Your task to perform on an android device: toggle sleep mode Image 0: 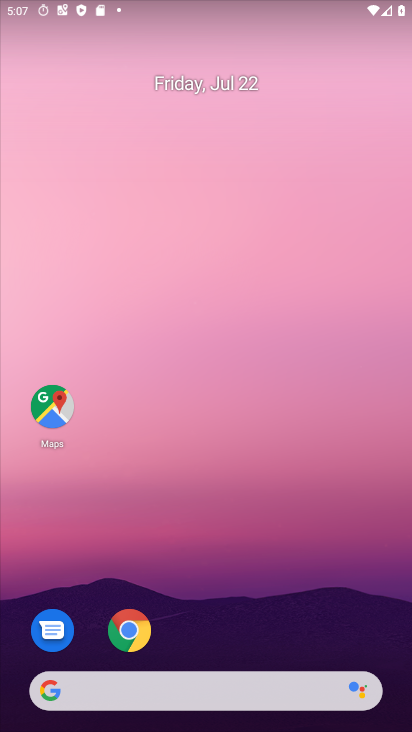
Step 0: drag from (197, 688) to (247, 12)
Your task to perform on an android device: toggle sleep mode Image 1: 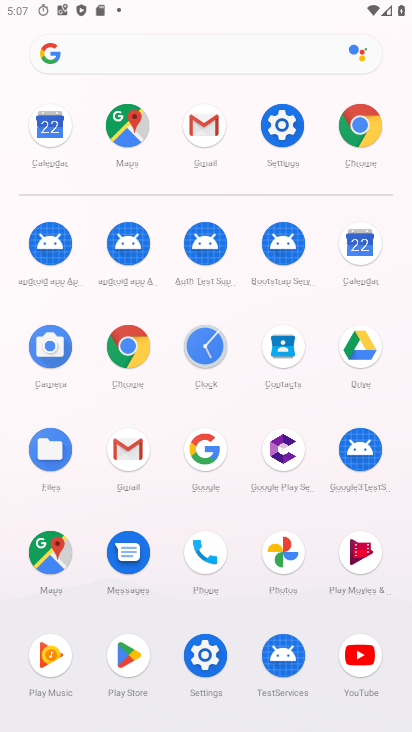
Step 1: click (276, 125)
Your task to perform on an android device: toggle sleep mode Image 2: 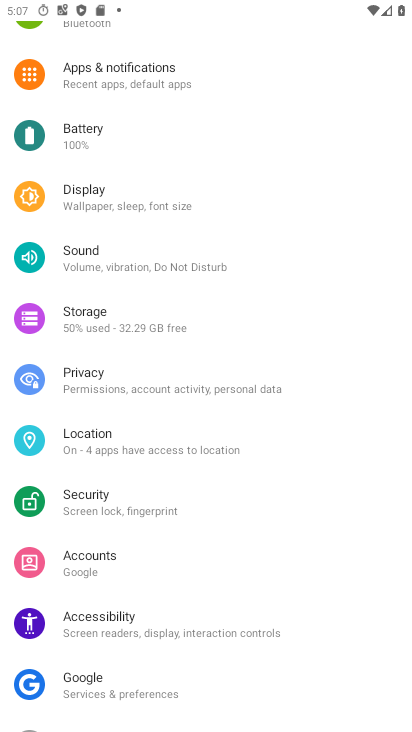
Step 2: click (103, 206)
Your task to perform on an android device: toggle sleep mode Image 3: 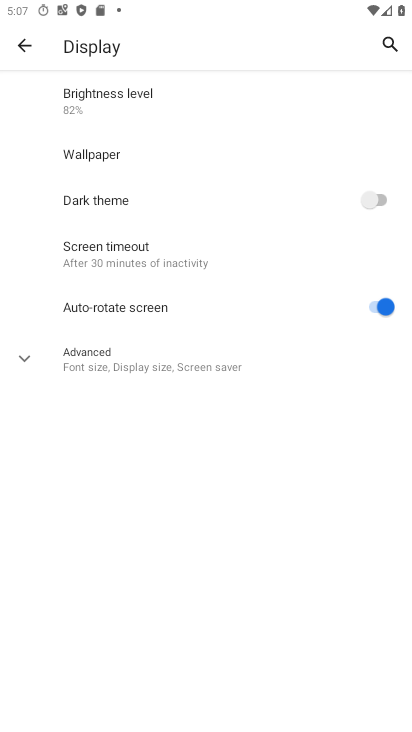
Step 3: task complete